Your task to perform on an android device: turn off location Image 0: 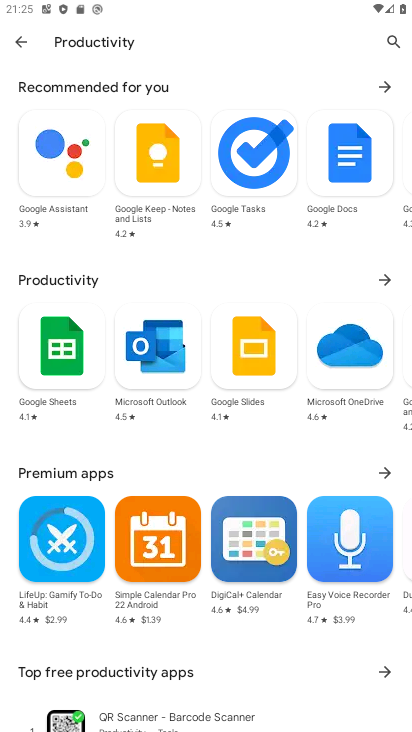
Step 0: press home button
Your task to perform on an android device: turn off location Image 1: 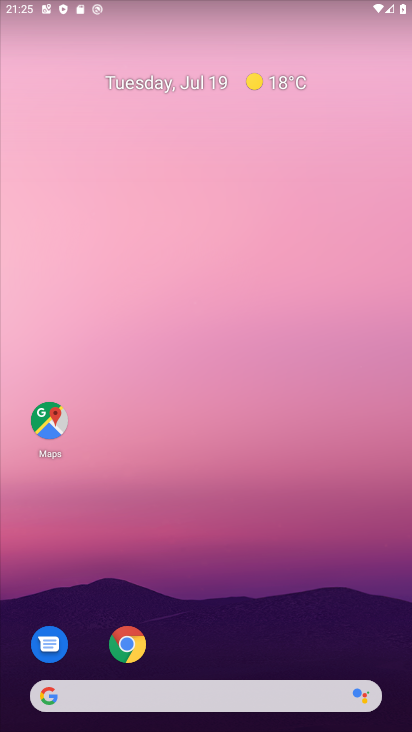
Step 1: drag from (216, 693) to (216, 183)
Your task to perform on an android device: turn off location Image 2: 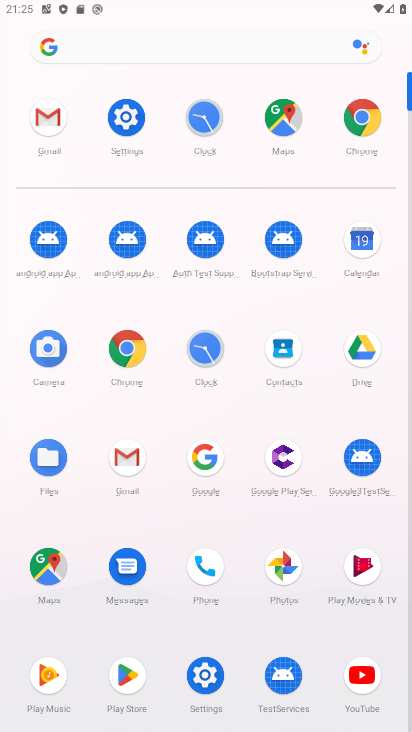
Step 2: click (127, 109)
Your task to perform on an android device: turn off location Image 3: 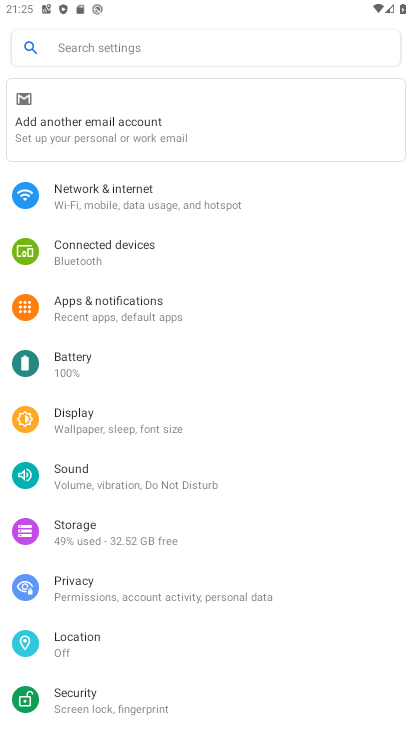
Step 3: click (78, 633)
Your task to perform on an android device: turn off location Image 4: 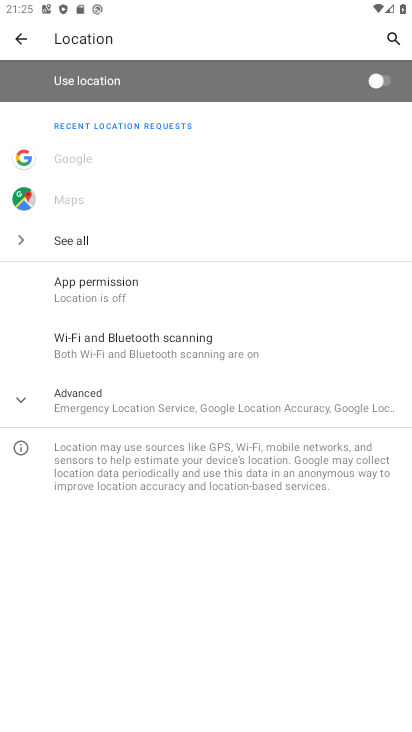
Step 4: task complete